Your task to perform on an android device: Go to settings Image 0: 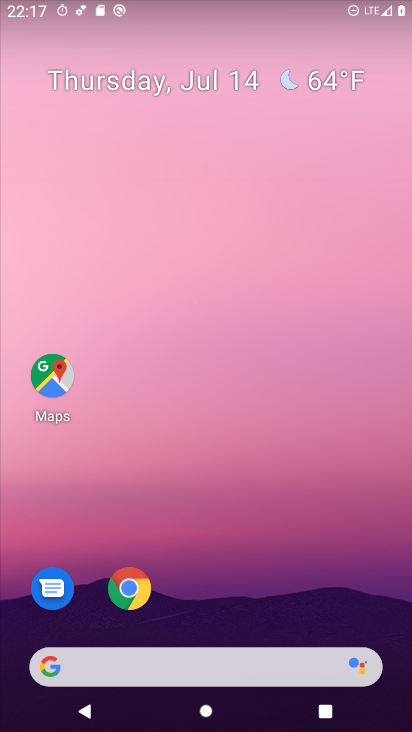
Step 0: drag from (370, 603) to (401, 136)
Your task to perform on an android device: Go to settings Image 1: 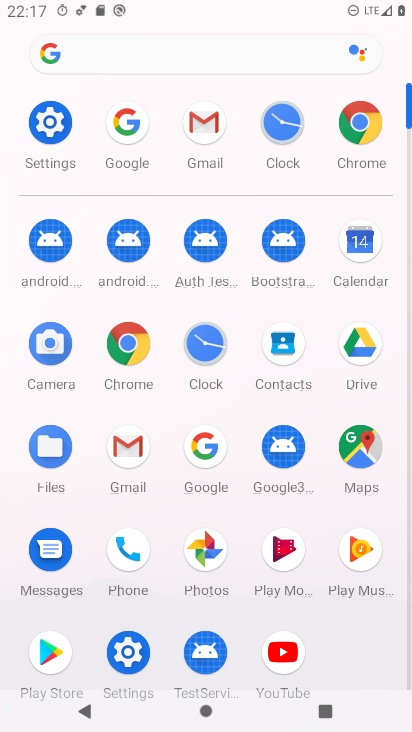
Step 1: click (128, 649)
Your task to perform on an android device: Go to settings Image 2: 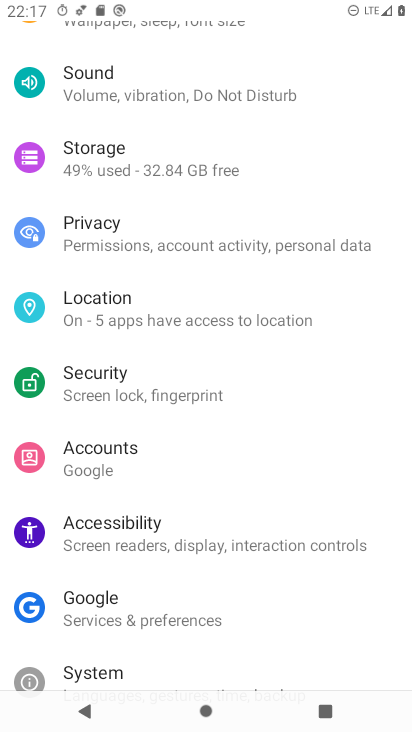
Step 2: task complete